Your task to perform on an android device: Open settings Image 0: 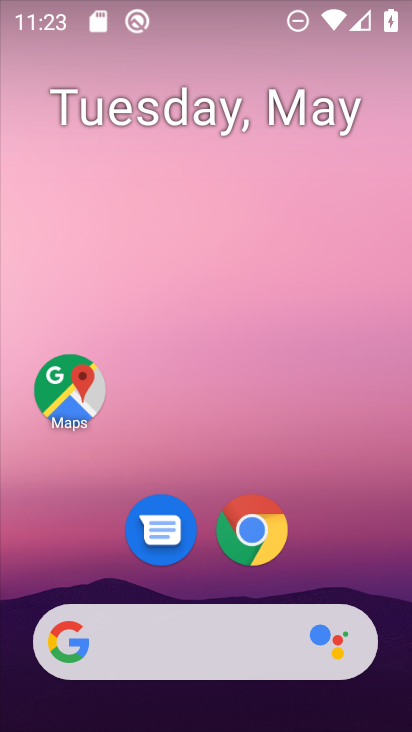
Step 0: drag from (270, 265) to (265, 2)
Your task to perform on an android device: Open settings Image 1: 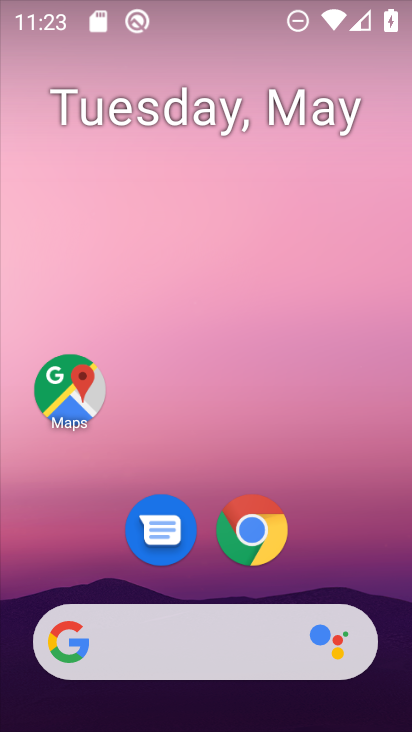
Step 1: drag from (330, 513) to (285, 141)
Your task to perform on an android device: Open settings Image 2: 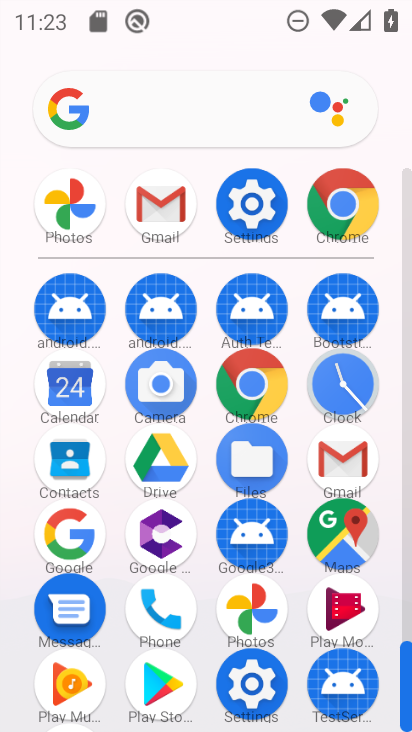
Step 2: click (259, 217)
Your task to perform on an android device: Open settings Image 3: 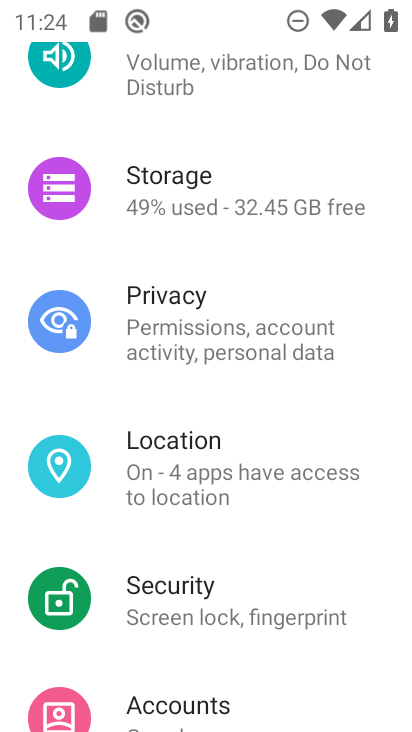
Step 3: task complete